Your task to perform on an android device: refresh tabs in the chrome app Image 0: 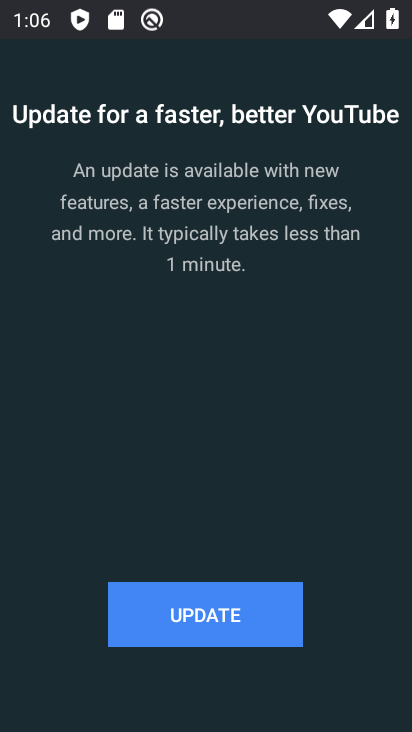
Step 0: press home button
Your task to perform on an android device: refresh tabs in the chrome app Image 1: 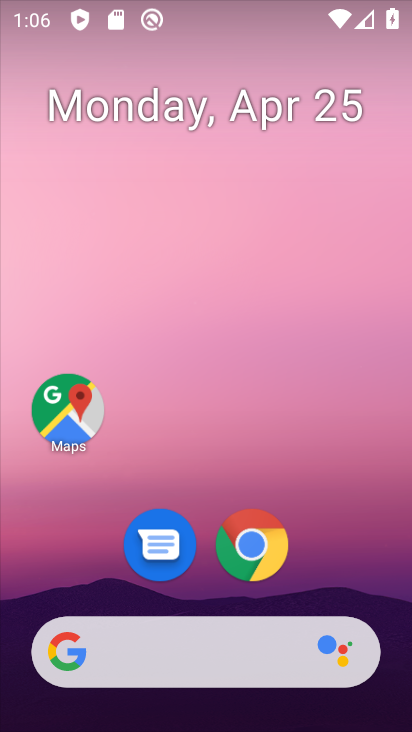
Step 1: click (263, 536)
Your task to perform on an android device: refresh tabs in the chrome app Image 2: 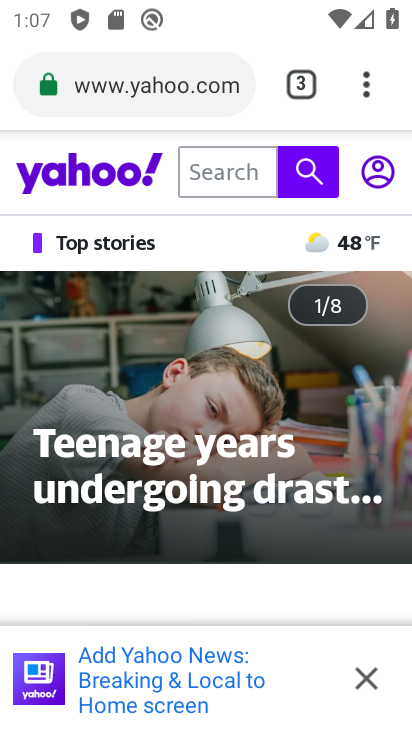
Step 2: click (370, 85)
Your task to perform on an android device: refresh tabs in the chrome app Image 3: 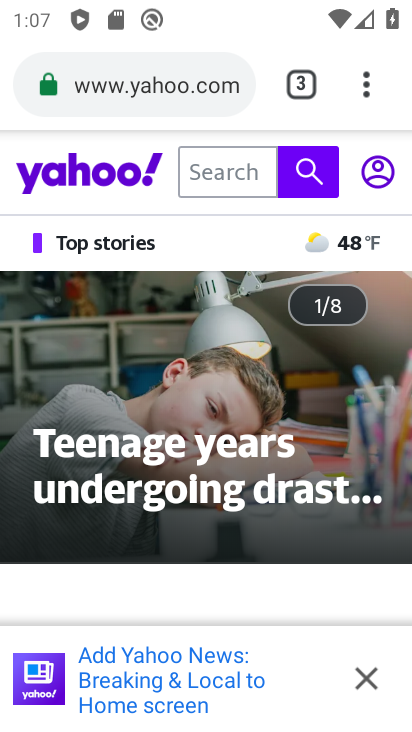
Step 3: task complete